Your task to perform on an android device: toggle airplane mode Image 0: 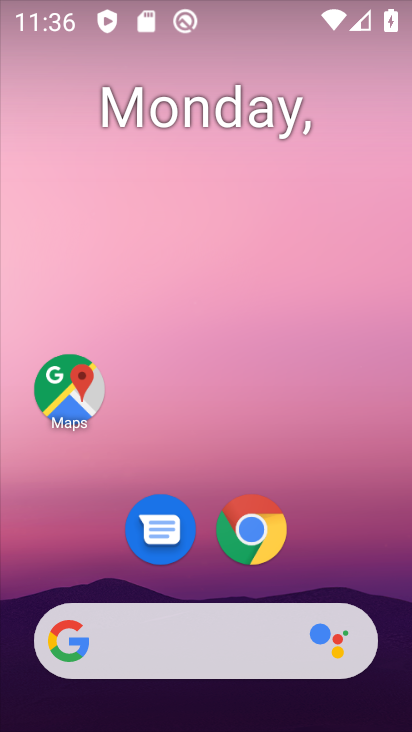
Step 0: drag from (224, 721) to (224, 41)
Your task to perform on an android device: toggle airplane mode Image 1: 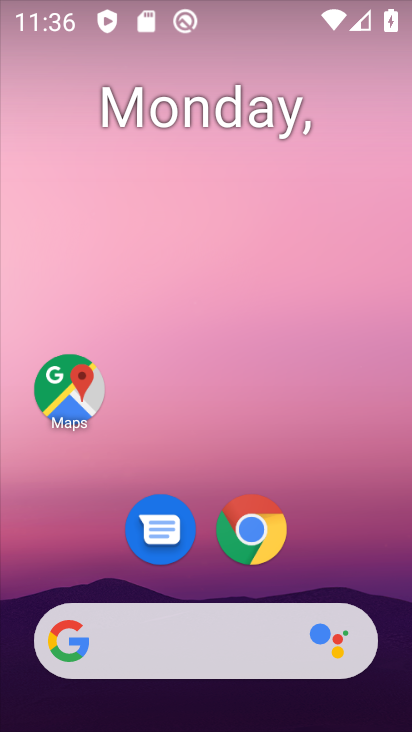
Step 1: drag from (209, 723) to (205, 186)
Your task to perform on an android device: toggle airplane mode Image 2: 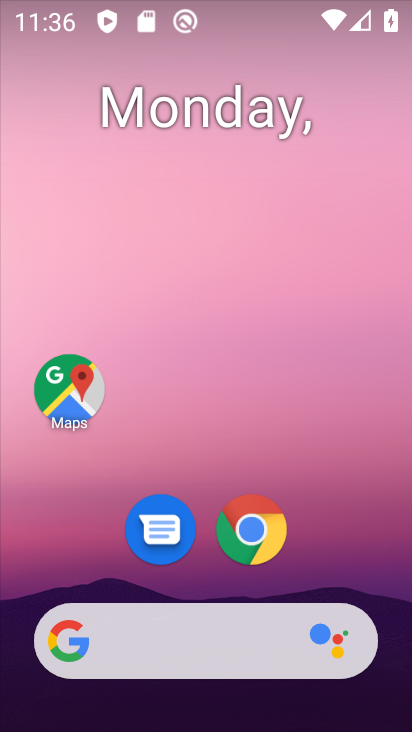
Step 2: drag from (226, 724) to (217, 145)
Your task to perform on an android device: toggle airplane mode Image 3: 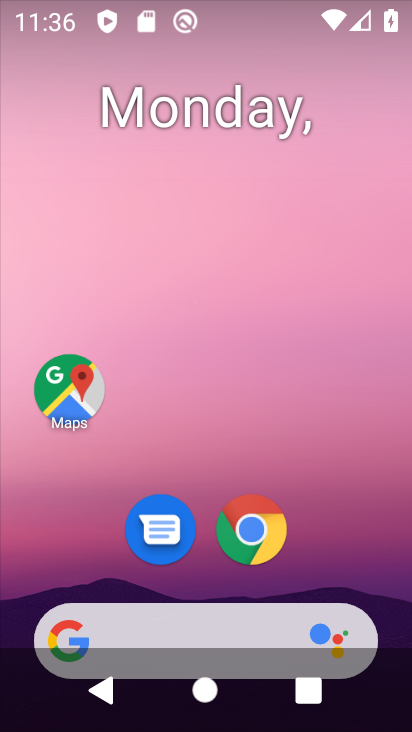
Step 3: drag from (208, 598) to (199, 108)
Your task to perform on an android device: toggle airplane mode Image 4: 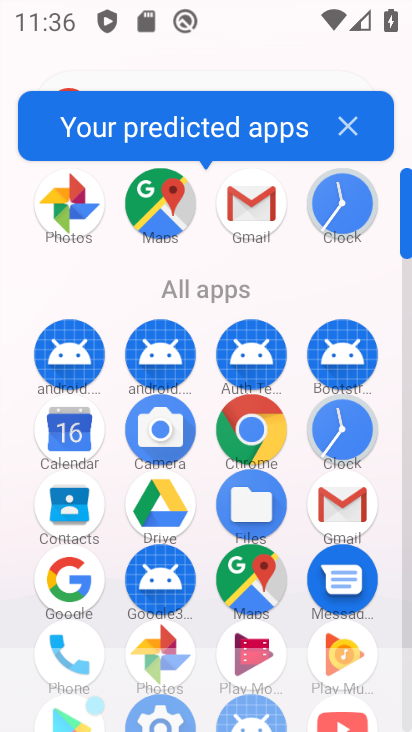
Step 4: drag from (212, 587) to (218, 160)
Your task to perform on an android device: toggle airplane mode Image 5: 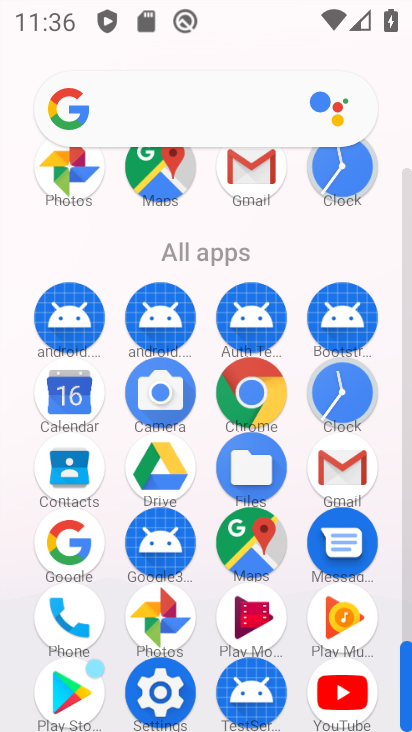
Step 5: click (165, 686)
Your task to perform on an android device: toggle airplane mode Image 6: 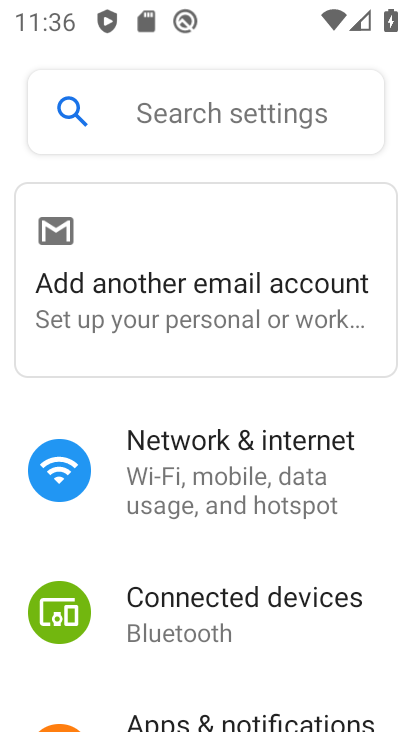
Step 6: click (186, 468)
Your task to perform on an android device: toggle airplane mode Image 7: 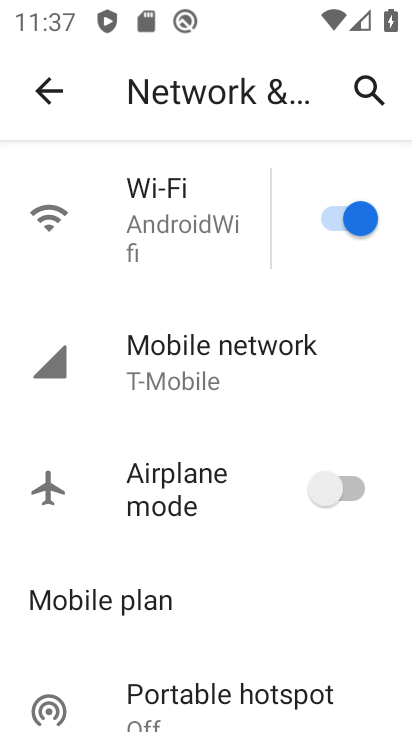
Step 7: click (337, 482)
Your task to perform on an android device: toggle airplane mode Image 8: 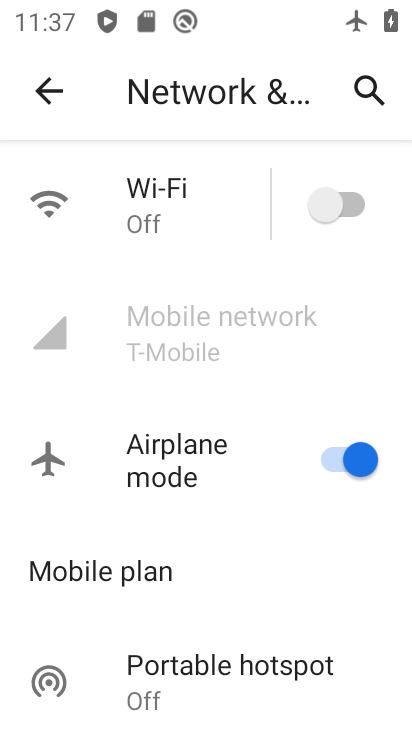
Step 8: task complete